Your task to perform on an android device: Open Chrome and go to the settings page Image 0: 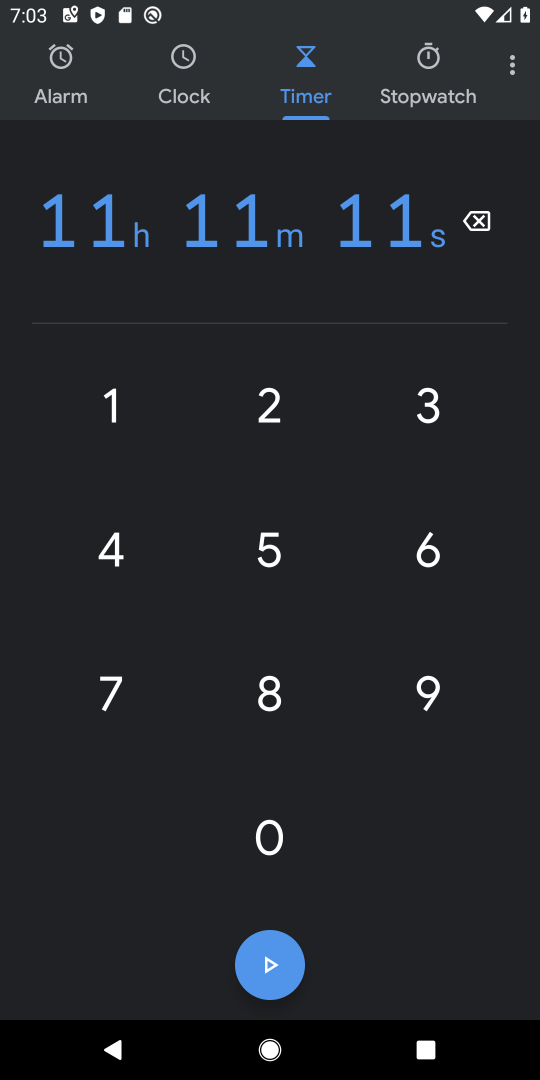
Step 0: press home button
Your task to perform on an android device: Open Chrome and go to the settings page Image 1: 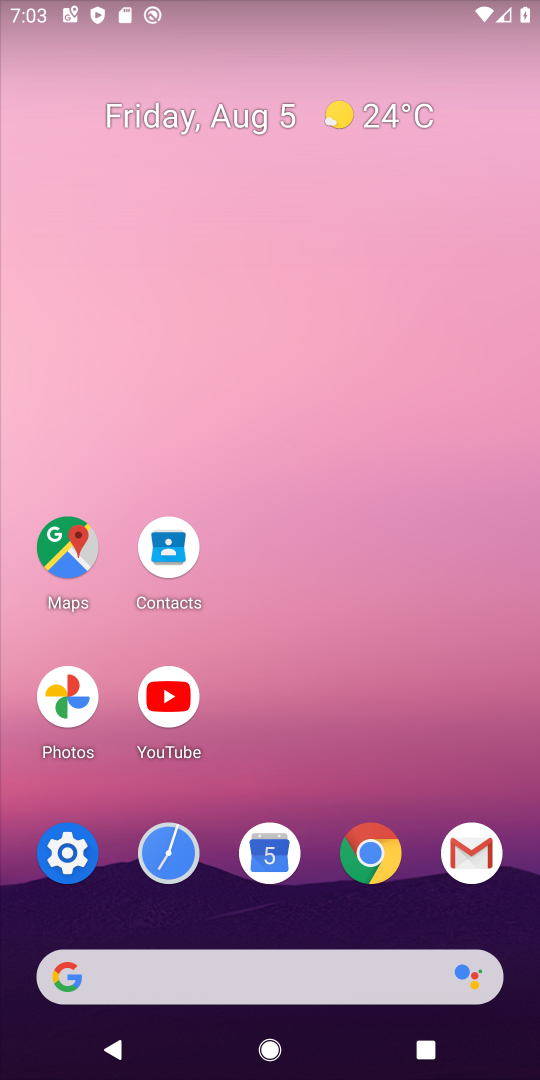
Step 1: click (375, 862)
Your task to perform on an android device: Open Chrome and go to the settings page Image 2: 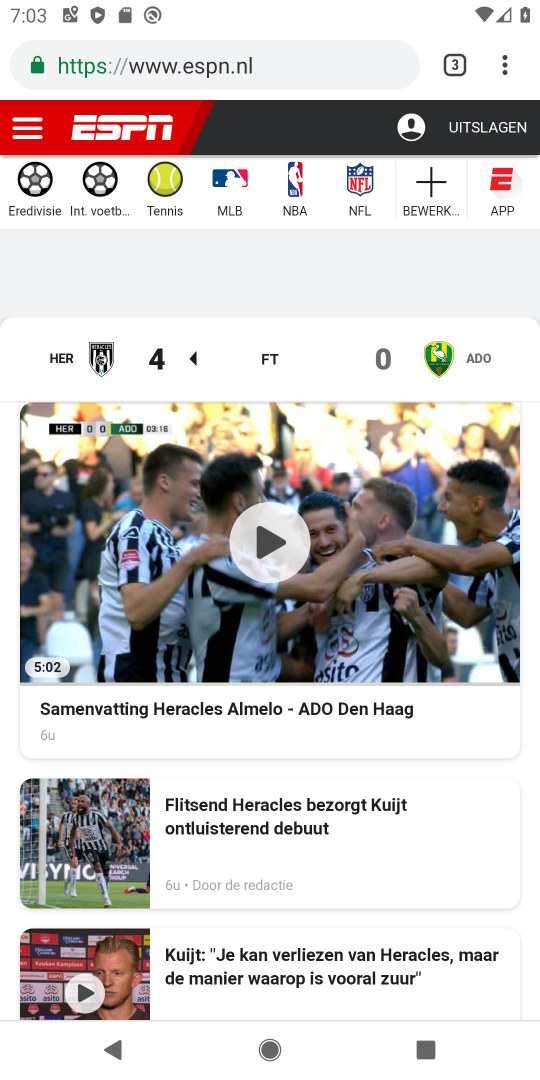
Step 2: click (512, 68)
Your task to perform on an android device: Open Chrome and go to the settings page Image 3: 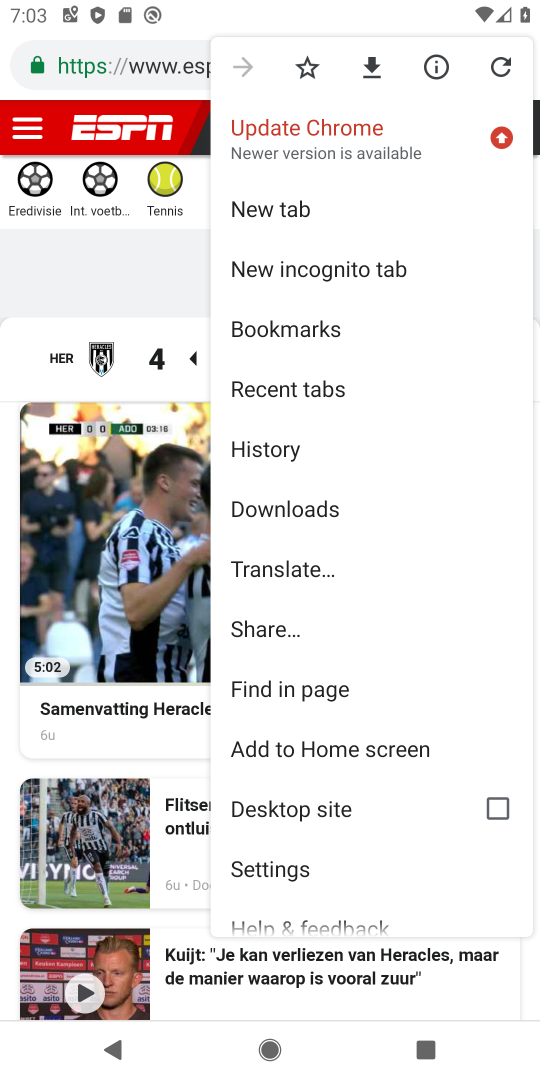
Step 3: click (282, 860)
Your task to perform on an android device: Open Chrome and go to the settings page Image 4: 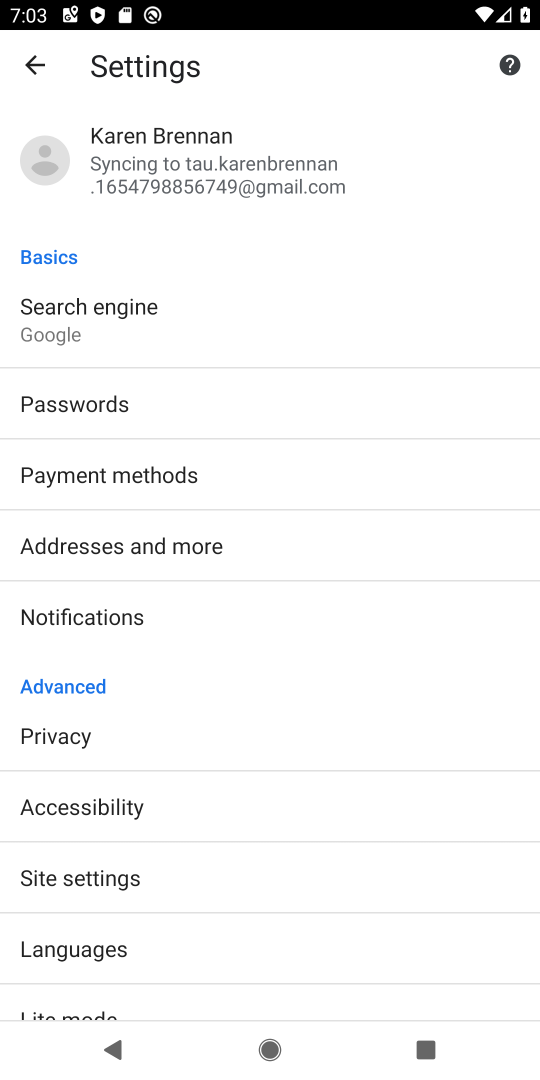
Step 4: task complete